Your task to perform on an android device: find which apps use the phone's location Image 0: 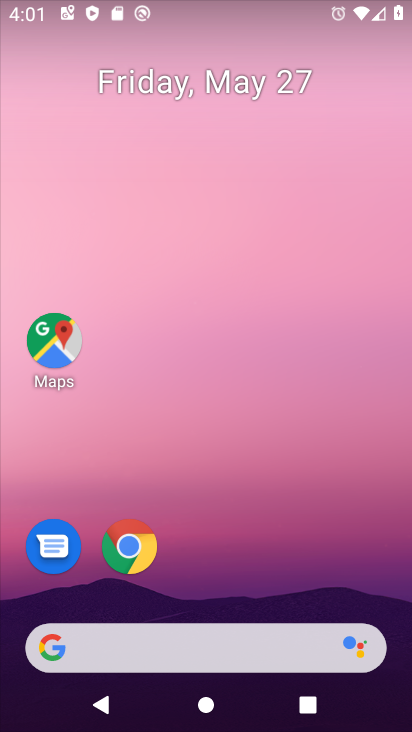
Step 0: press back button
Your task to perform on an android device: find which apps use the phone's location Image 1: 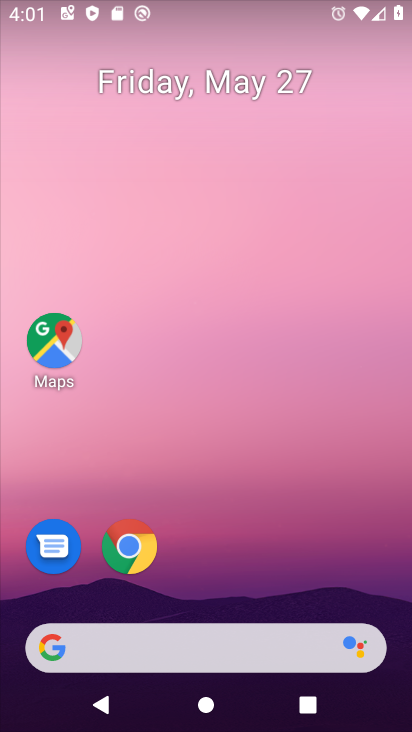
Step 1: drag from (214, 610) to (256, 113)
Your task to perform on an android device: find which apps use the phone's location Image 2: 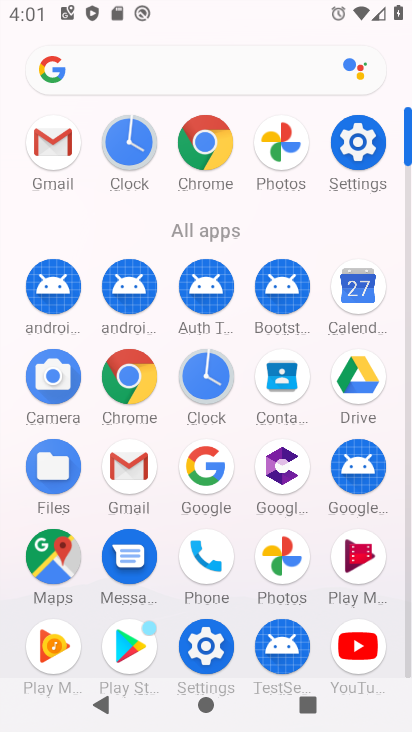
Step 2: click (355, 140)
Your task to perform on an android device: find which apps use the phone's location Image 3: 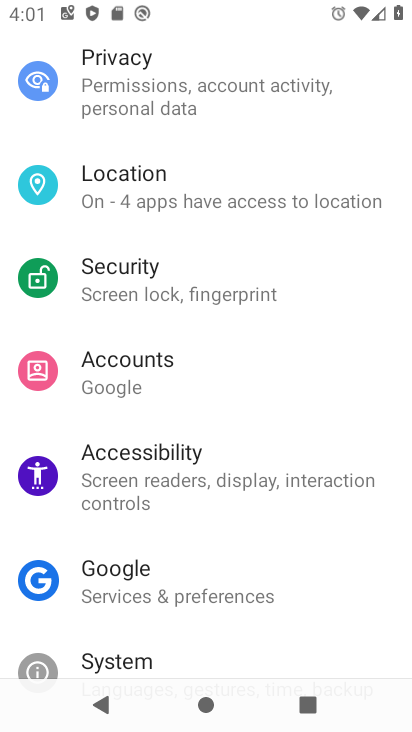
Step 3: click (188, 170)
Your task to perform on an android device: find which apps use the phone's location Image 4: 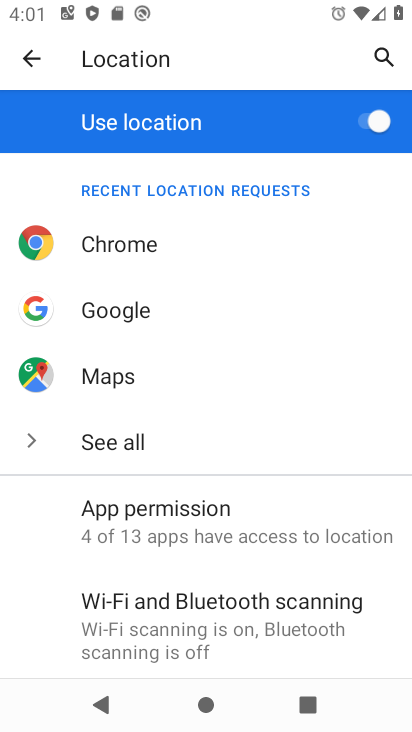
Step 4: click (199, 513)
Your task to perform on an android device: find which apps use the phone's location Image 5: 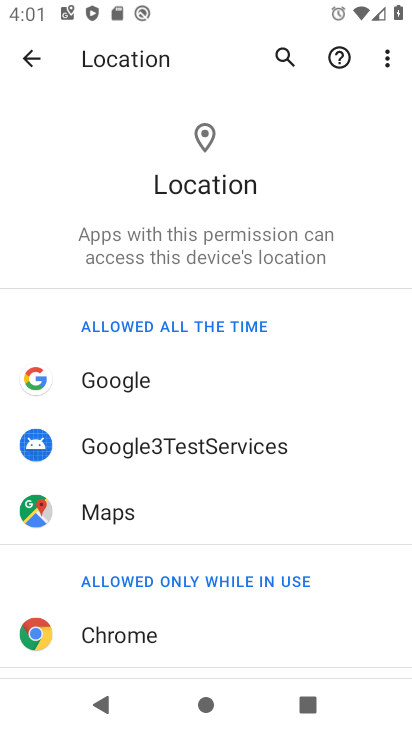
Step 5: task complete